Your task to perform on an android device: Open calendar and show me the third week of next month Image 0: 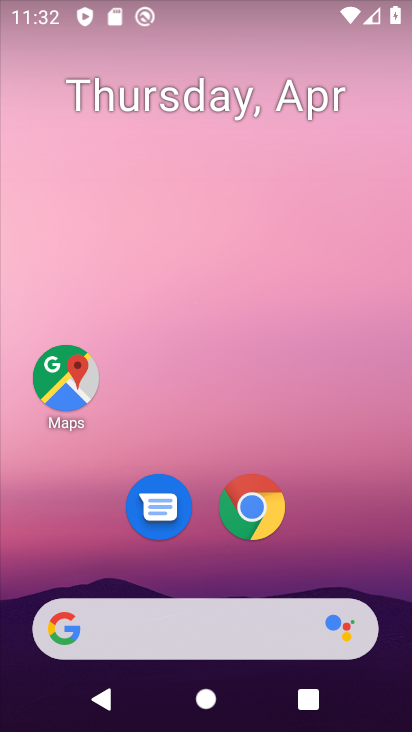
Step 0: drag from (208, 729) to (210, 140)
Your task to perform on an android device: Open calendar and show me the third week of next month Image 1: 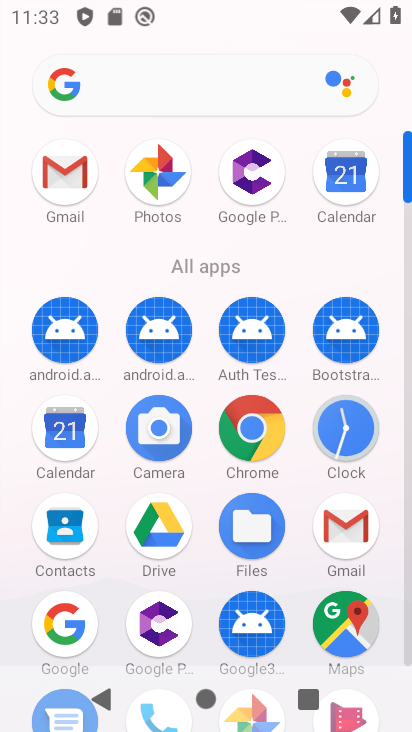
Step 1: click (63, 427)
Your task to perform on an android device: Open calendar and show me the third week of next month Image 2: 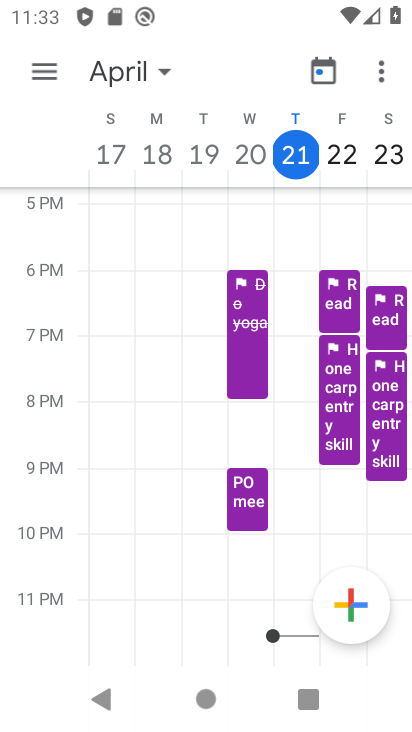
Step 2: click (40, 69)
Your task to perform on an android device: Open calendar and show me the third week of next month Image 3: 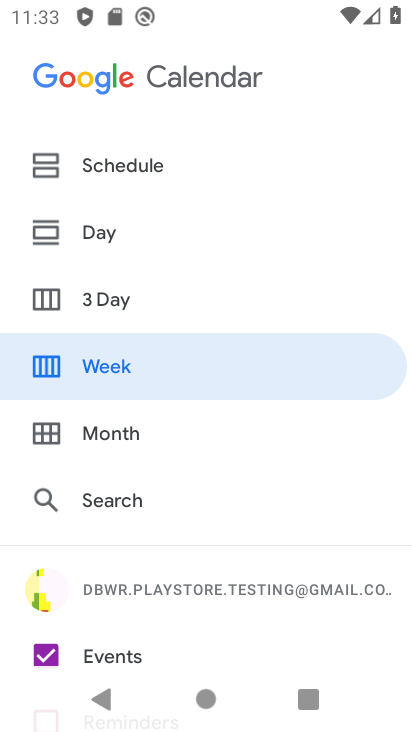
Step 3: click (99, 370)
Your task to perform on an android device: Open calendar and show me the third week of next month Image 4: 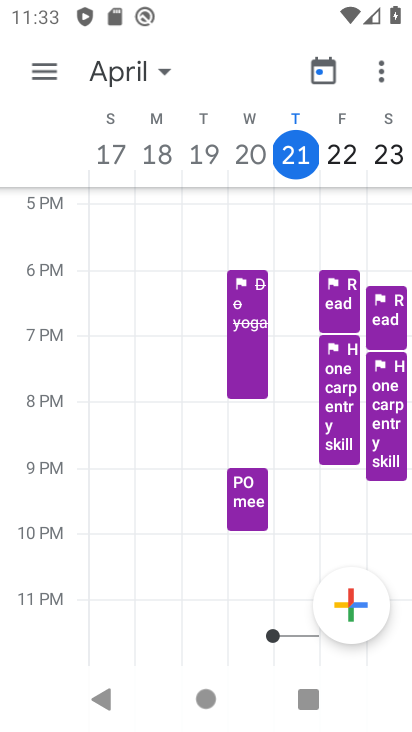
Step 4: click (162, 66)
Your task to perform on an android device: Open calendar and show me the third week of next month Image 5: 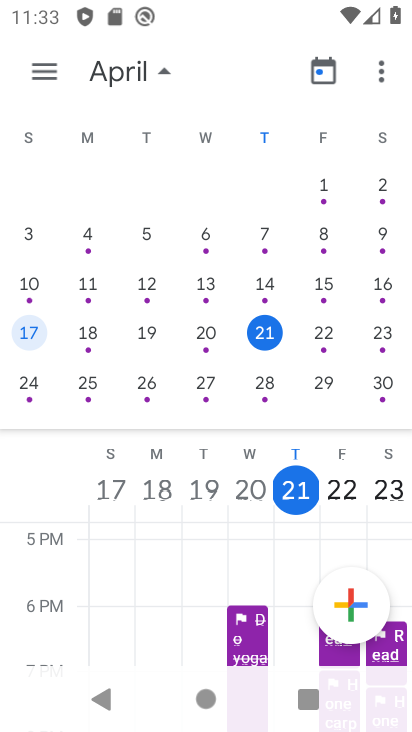
Step 5: drag from (361, 304) to (3, 317)
Your task to perform on an android device: Open calendar and show me the third week of next month Image 6: 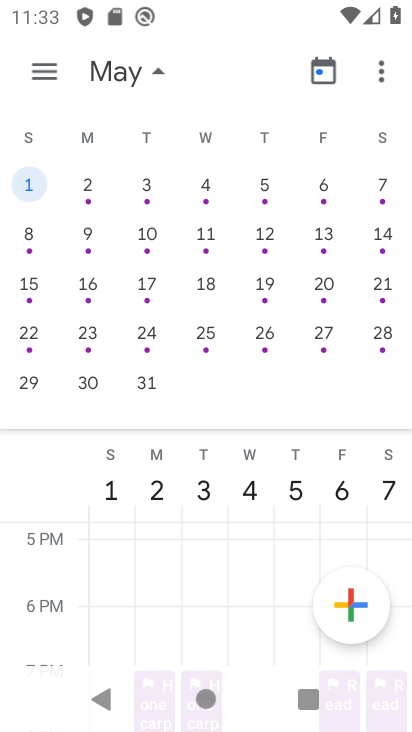
Step 6: click (88, 286)
Your task to perform on an android device: Open calendar and show me the third week of next month Image 7: 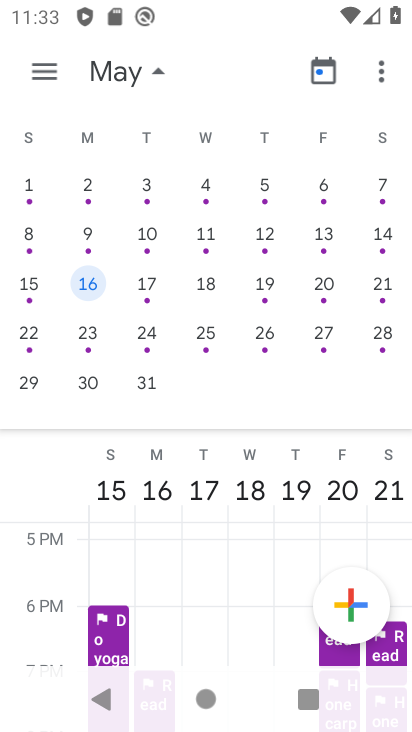
Step 7: task complete